Your task to perform on an android device: uninstall "AliExpress" Image 0: 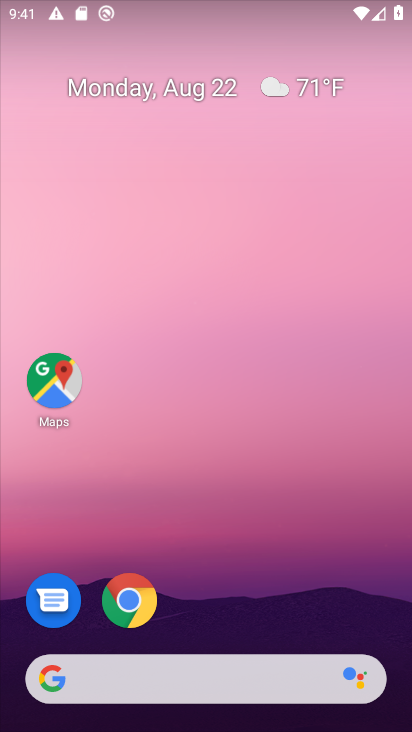
Step 0: drag from (246, 576) to (248, 178)
Your task to perform on an android device: uninstall "AliExpress" Image 1: 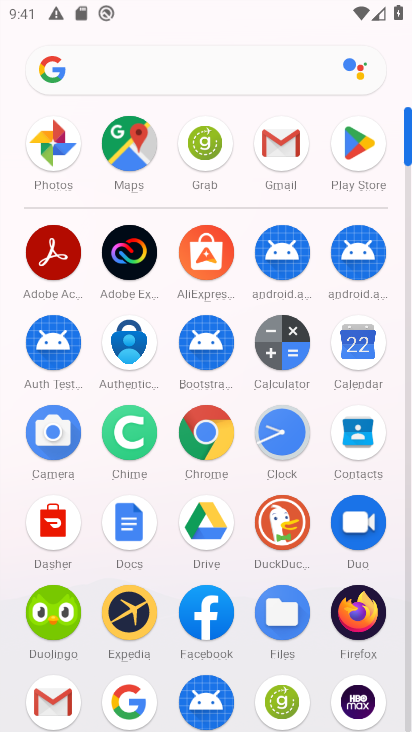
Step 1: click (352, 150)
Your task to perform on an android device: uninstall "AliExpress" Image 2: 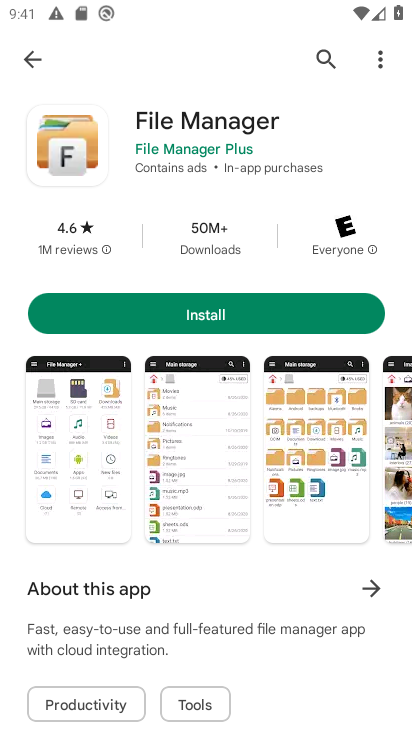
Step 2: click (314, 54)
Your task to perform on an android device: uninstall "AliExpress" Image 3: 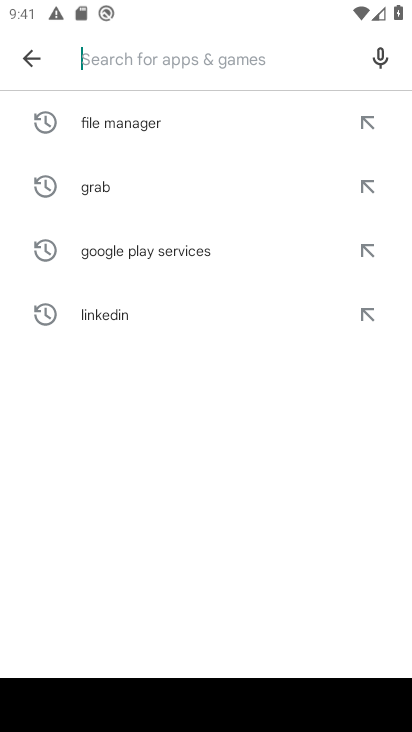
Step 3: click (198, 729)
Your task to perform on an android device: uninstall "AliExpress" Image 4: 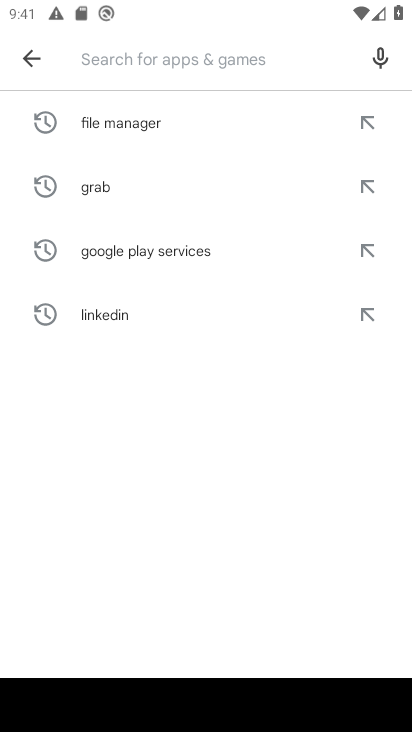
Step 4: type "AliExpress"
Your task to perform on an android device: uninstall "AliExpress" Image 5: 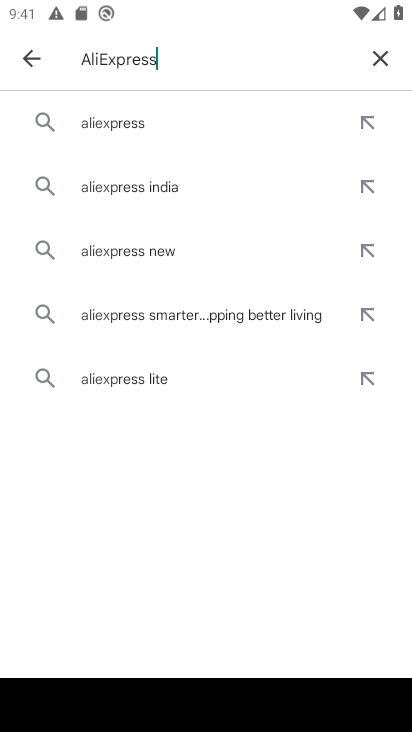
Step 5: type ""
Your task to perform on an android device: uninstall "AliExpress" Image 6: 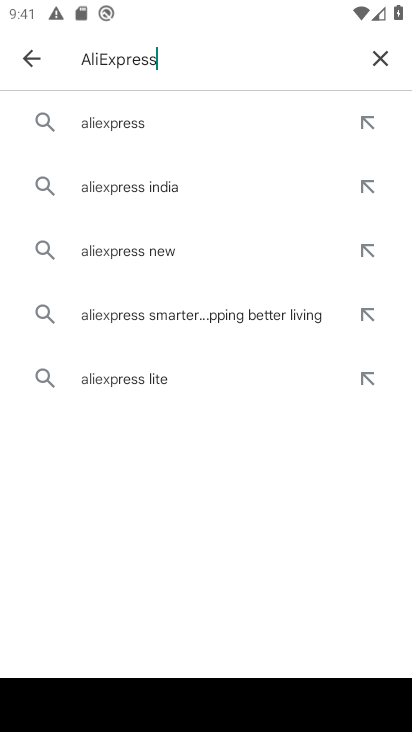
Step 6: drag from (198, 729) to (402, 251)
Your task to perform on an android device: uninstall "AliExpress" Image 7: 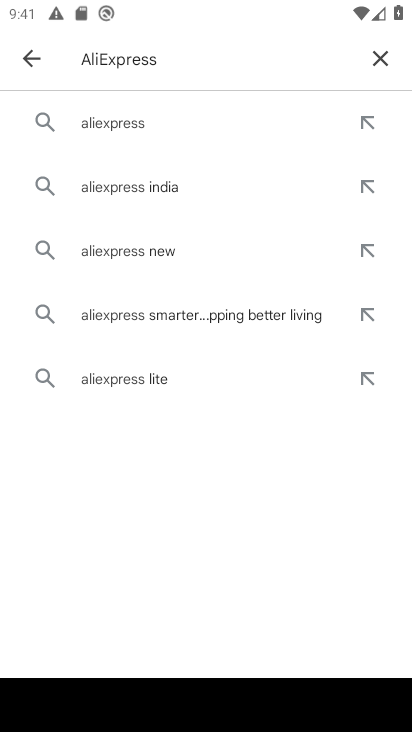
Step 7: click (140, 126)
Your task to perform on an android device: uninstall "AliExpress" Image 8: 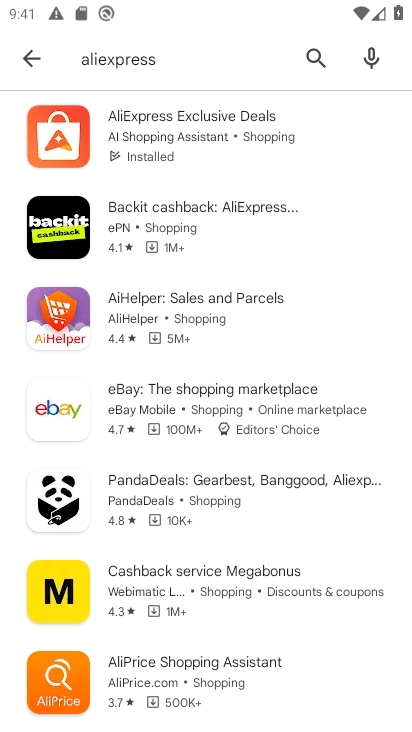
Step 8: click (170, 129)
Your task to perform on an android device: uninstall "AliExpress" Image 9: 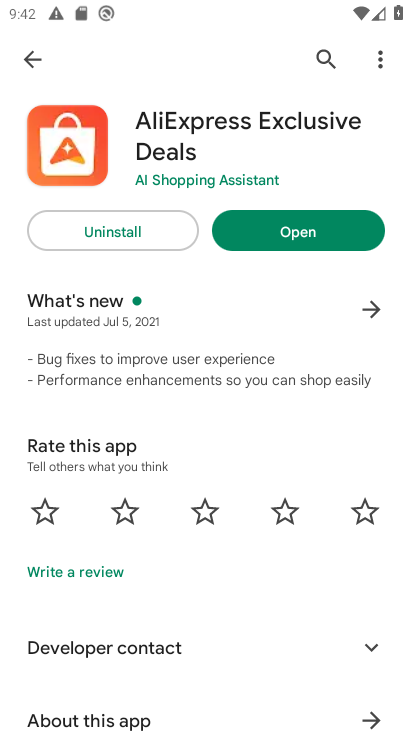
Step 9: click (147, 226)
Your task to perform on an android device: uninstall "AliExpress" Image 10: 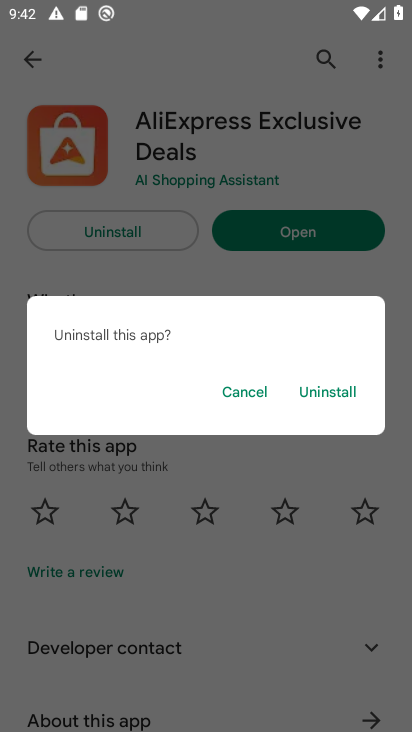
Step 10: click (317, 385)
Your task to perform on an android device: uninstall "AliExpress" Image 11: 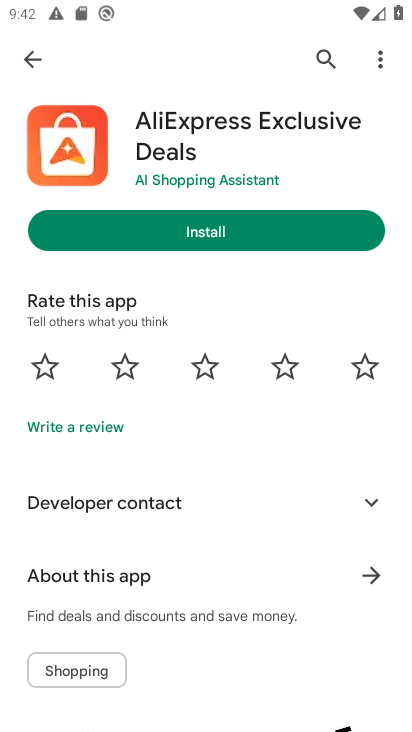
Step 11: task complete